Your task to perform on an android device: open chrome and create a bookmark for the current page Image 0: 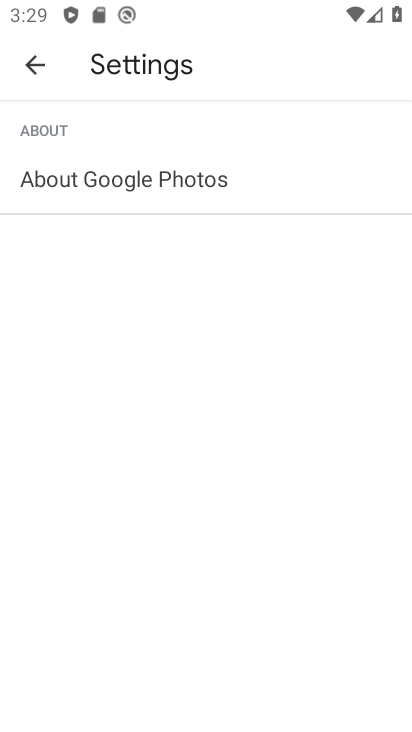
Step 0: press home button
Your task to perform on an android device: open chrome and create a bookmark for the current page Image 1: 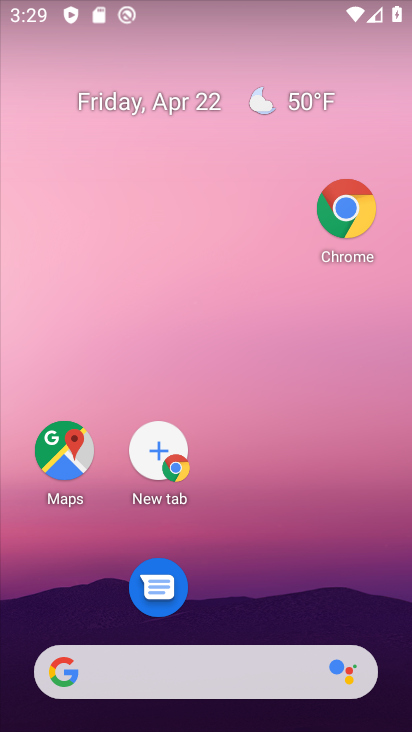
Step 1: click (348, 206)
Your task to perform on an android device: open chrome and create a bookmark for the current page Image 2: 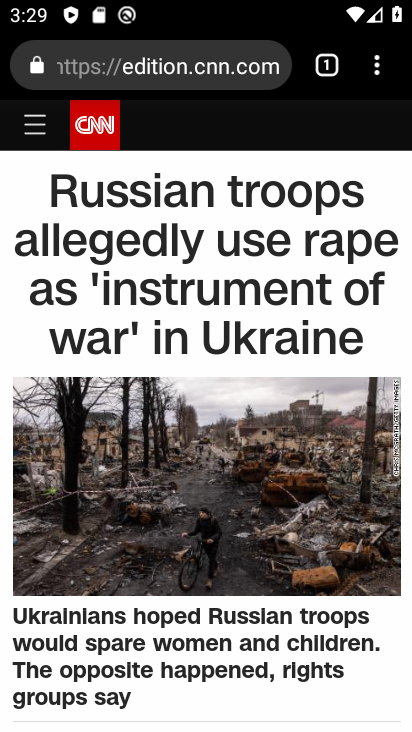
Step 2: click (353, 63)
Your task to perform on an android device: open chrome and create a bookmark for the current page Image 3: 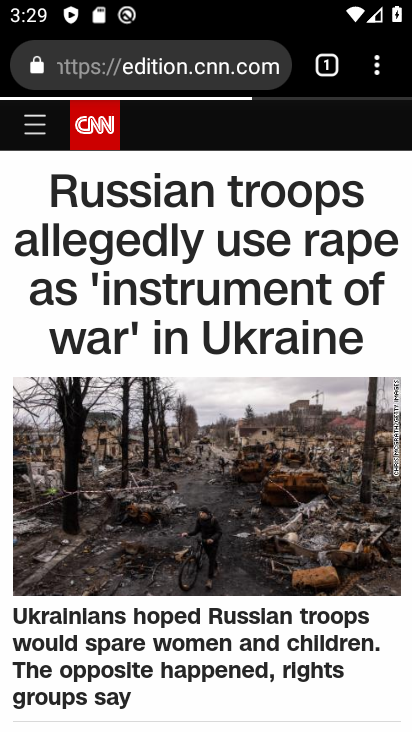
Step 3: click (376, 66)
Your task to perform on an android device: open chrome and create a bookmark for the current page Image 4: 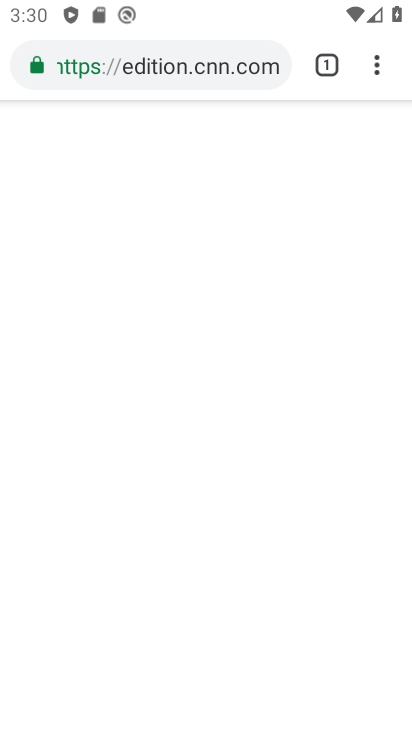
Step 4: click (376, 66)
Your task to perform on an android device: open chrome and create a bookmark for the current page Image 5: 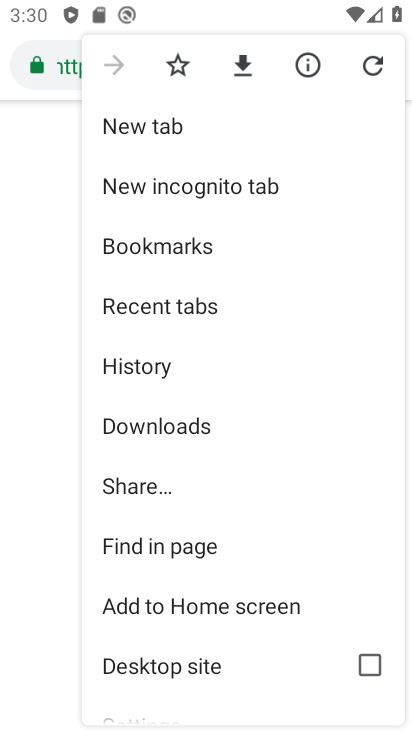
Step 5: click (183, 66)
Your task to perform on an android device: open chrome and create a bookmark for the current page Image 6: 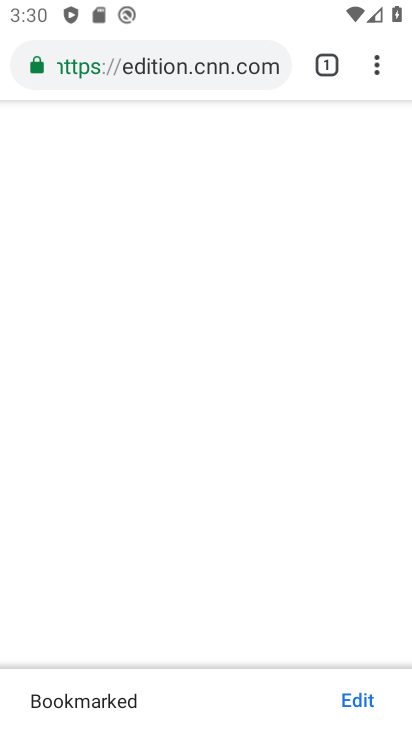
Step 6: task complete